Your task to perform on an android device: Open the web browser Image 0: 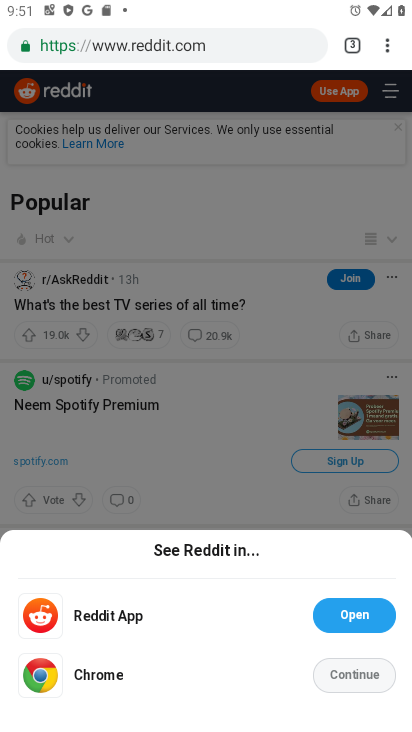
Step 0: press home button
Your task to perform on an android device: Open the web browser Image 1: 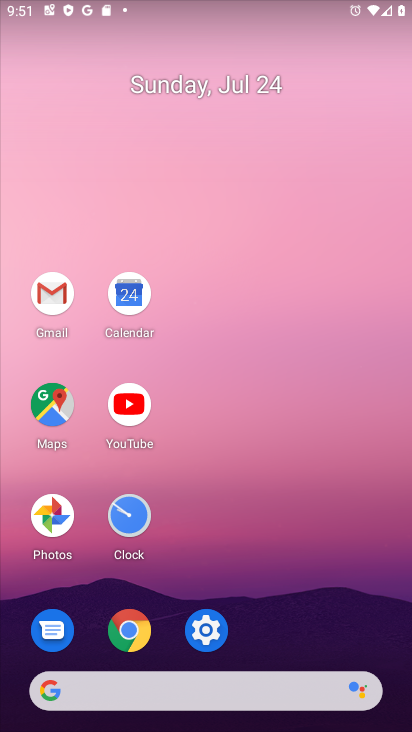
Step 1: click (127, 630)
Your task to perform on an android device: Open the web browser Image 2: 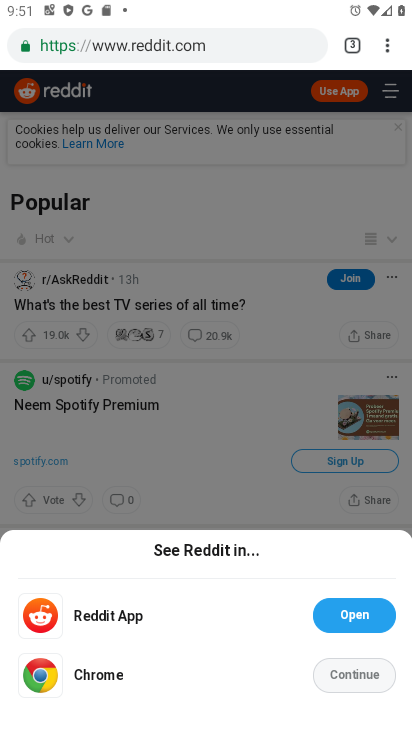
Step 2: click (350, 680)
Your task to perform on an android device: Open the web browser Image 3: 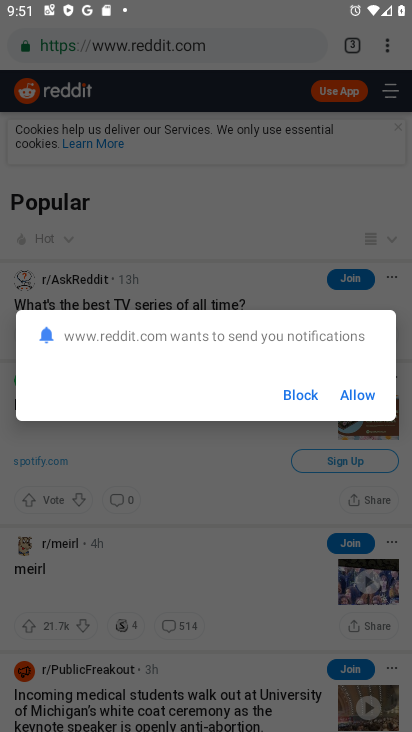
Step 3: click (357, 394)
Your task to perform on an android device: Open the web browser Image 4: 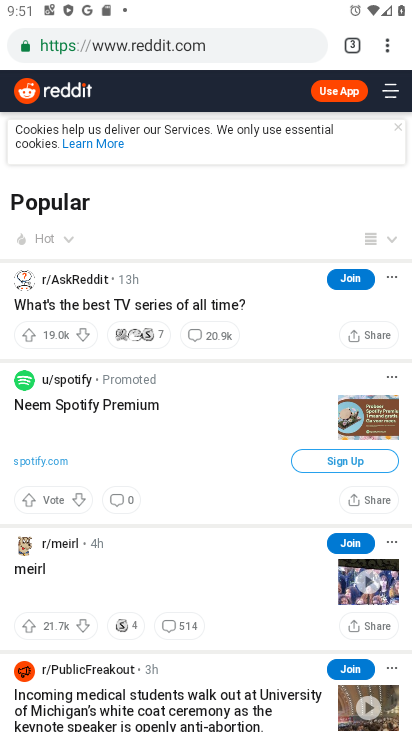
Step 4: task complete